Your task to perform on an android device: Show me productivity apps on the Play Store Image 0: 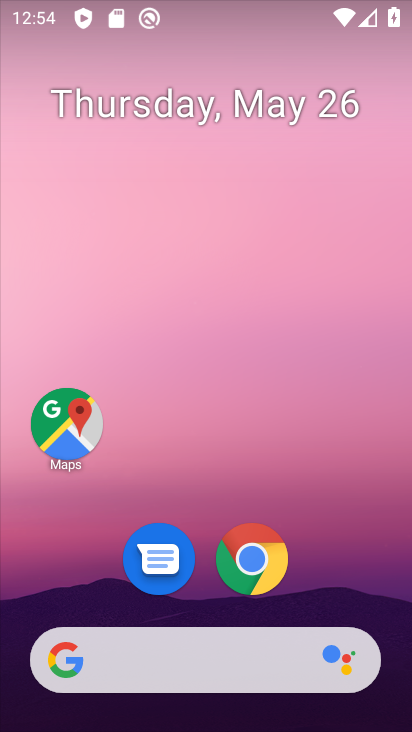
Step 0: press home button
Your task to perform on an android device: Show me productivity apps on the Play Store Image 1: 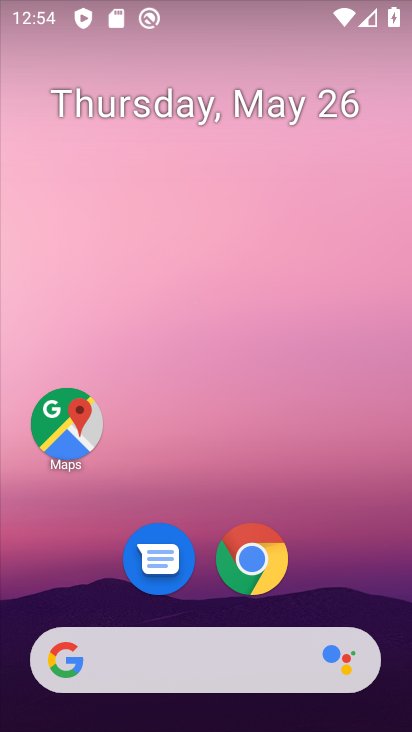
Step 1: drag from (258, 656) to (287, 246)
Your task to perform on an android device: Show me productivity apps on the Play Store Image 2: 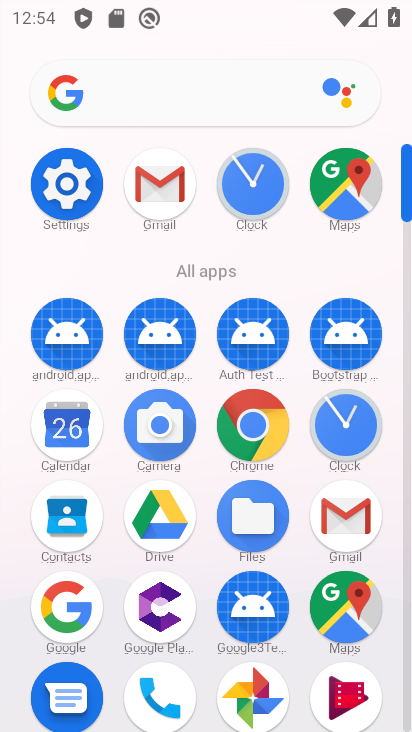
Step 2: drag from (193, 663) to (304, 183)
Your task to perform on an android device: Show me productivity apps on the Play Store Image 3: 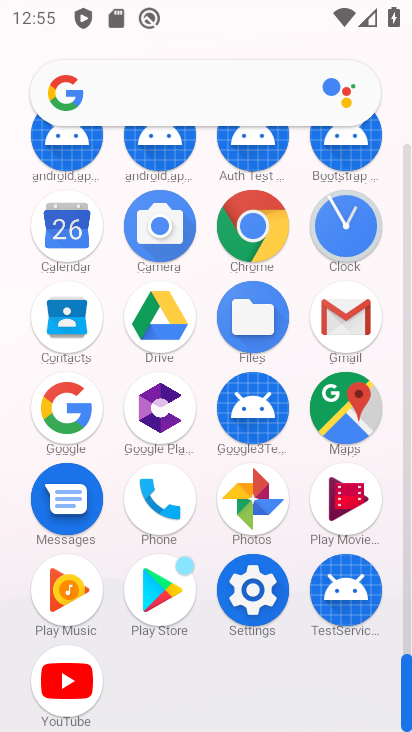
Step 3: click (172, 595)
Your task to perform on an android device: Show me productivity apps on the Play Store Image 4: 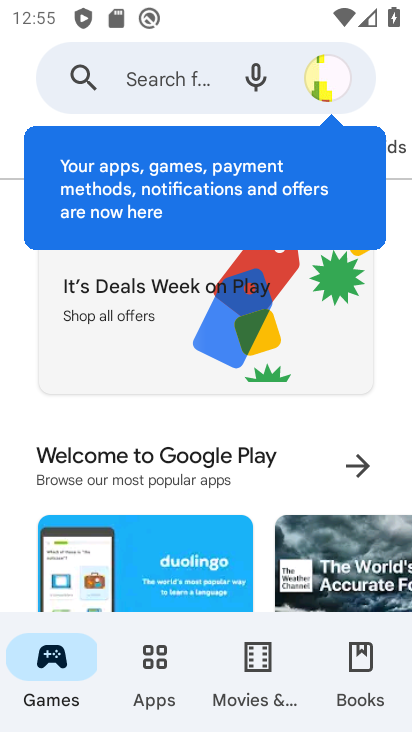
Step 4: click (154, 656)
Your task to perform on an android device: Show me productivity apps on the Play Store Image 5: 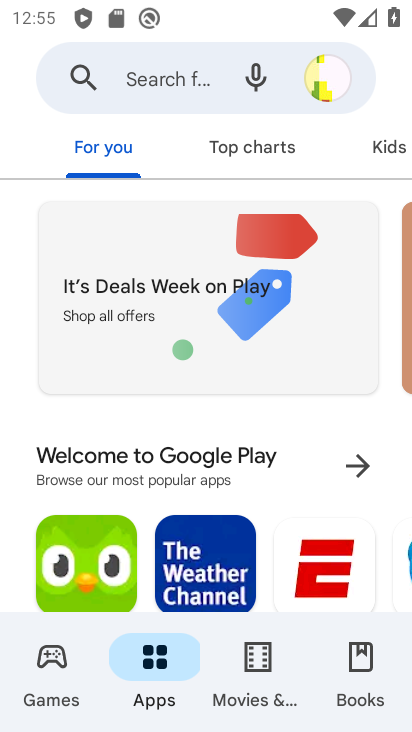
Step 5: drag from (337, 157) to (89, 143)
Your task to perform on an android device: Show me productivity apps on the Play Store Image 6: 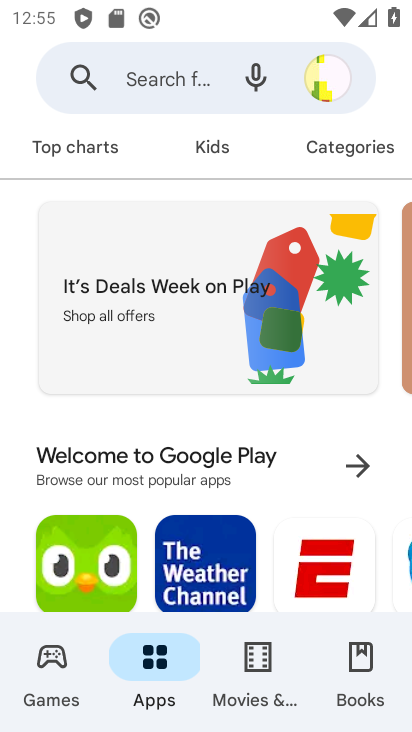
Step 6: click (327, 151)
Your task to perform on an android device: Show me productivity apps on the Play Store Image 7: 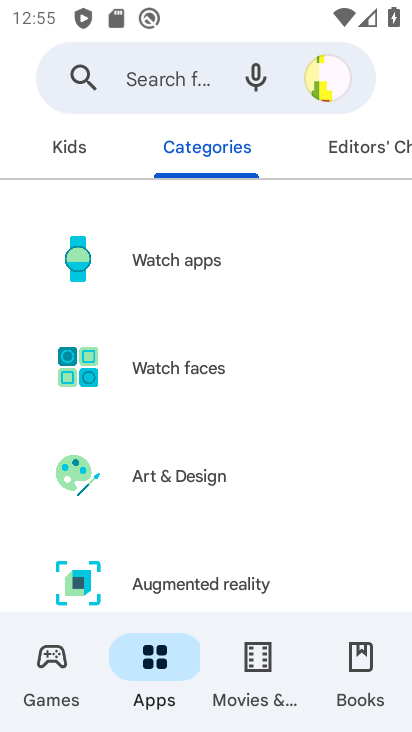
Step 7: drag from (249, 557) to (373, 75)
Your task to perform on an android device: Show me productivity apps on the Play Store Image 8: 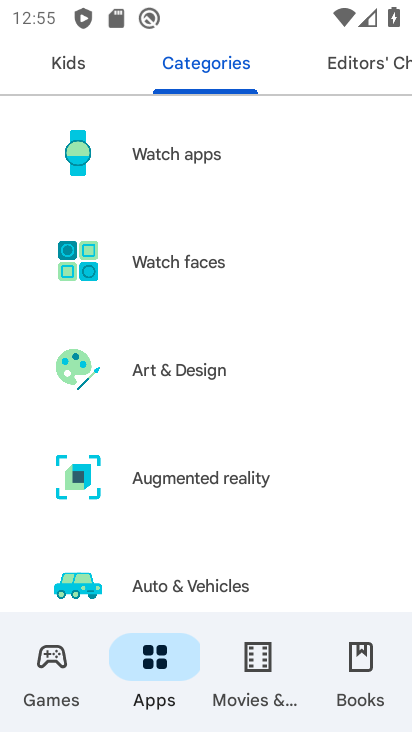
Step 8: drag from (235, 575) to (373, 1)
Your task to perform on an android device: Show me productivity apps on the Play Store Image 9: 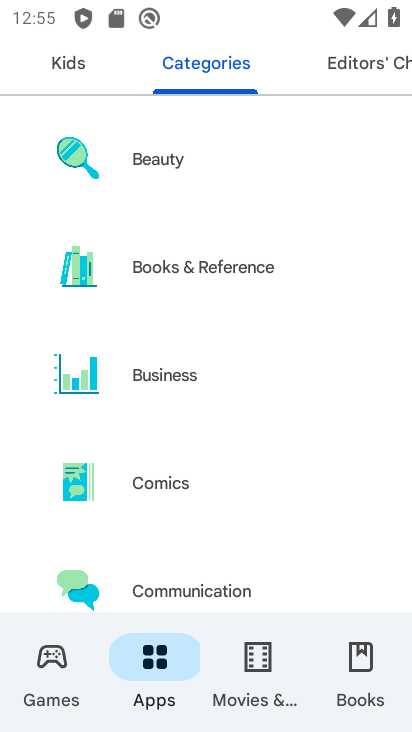
Step 9: drag from (270, 533) to (325, 65)
Your task to perform on an android device: Show me productivity apps on the Play Store Image 10: 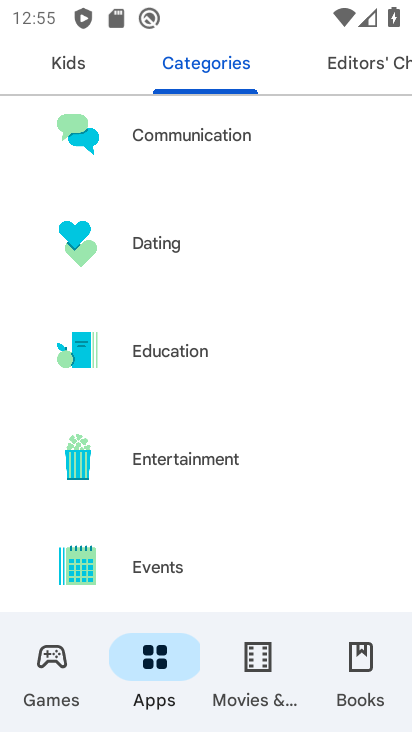
Step 10: drag from (239, 565) to (334, 83)
Your task to perform on an android device: Show me productivity apps on the Play Store Image 11: 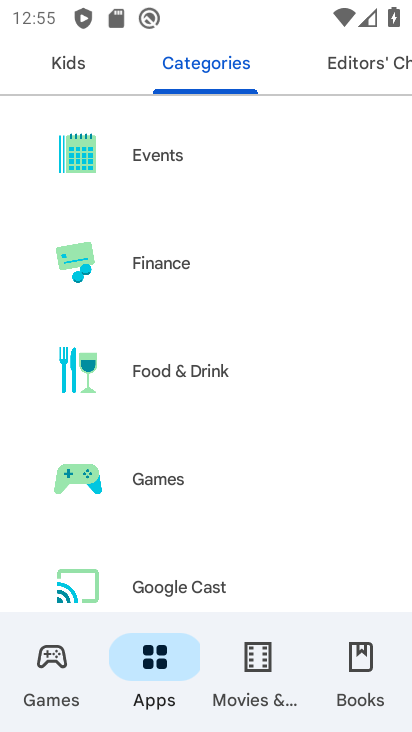
Step 11: drag from (230, 544) to (346, 56)
Your task to perform on an android device: Show me productivity apps on the Play Store Image 12: 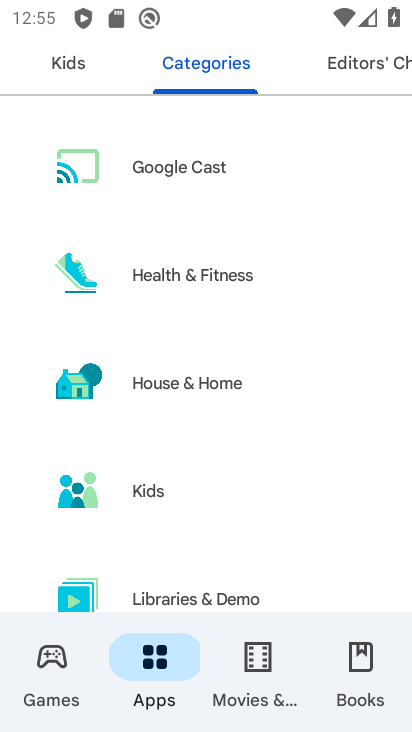
Step 12: drag from (240, 557) to (381, 93)
Your task to perform on an android device: Show me productivity apps on the Play Store Image 13: 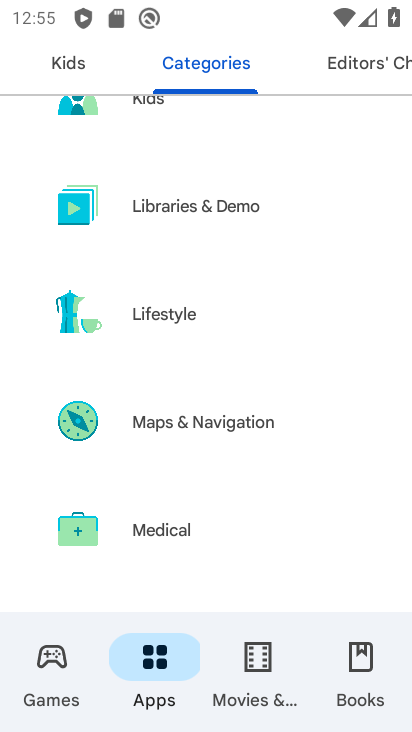
Step 13: drag from (255, 510) to (304, 1)
Your task to perform on an android device: Show me productivity apps on the Play Store Image 14: 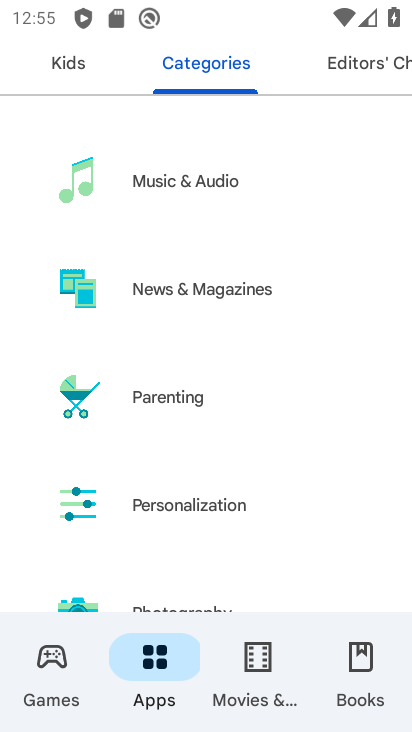
Step 14: drag from (242, 534) to (336, 38)
Your task to perform on an android device: Show me productivity apps on the Play Store Image 15: 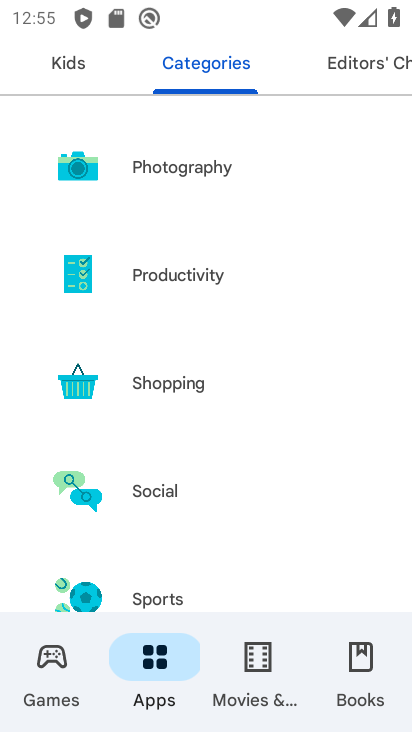
Step 15: click (185, 276)
Your task to perform on an android device: Show me productivity apps on the Play Store Image 16: 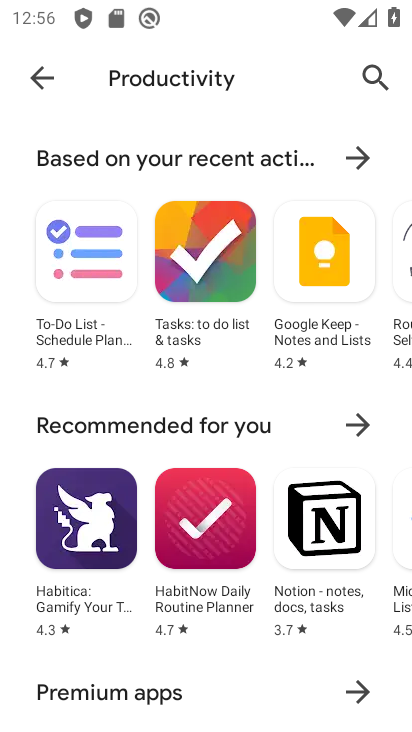
Step 16: task complete